Your task to perform on an android device: allow cookies in the chrome app Image 0: 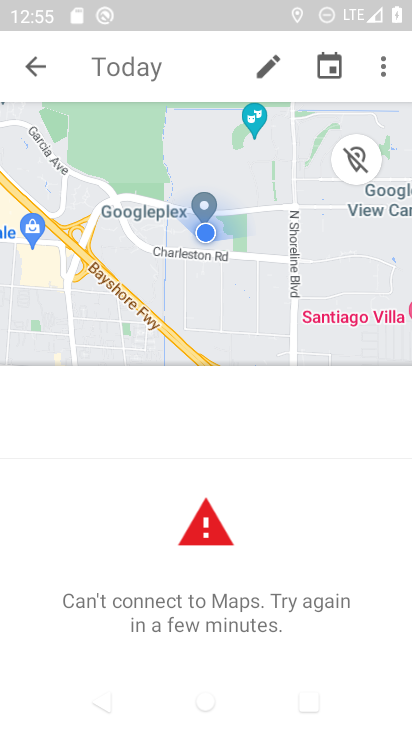
Step 0: press home button
Your task to perform on an android device: allow cookies in the chrome app Image 1: 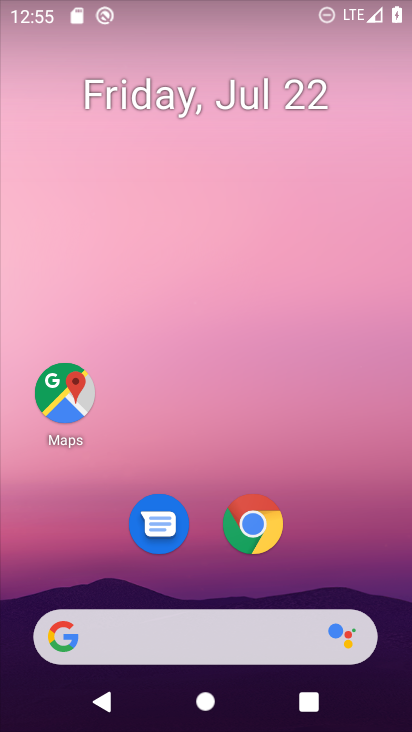
Step 1: click (268, 522)
Your task to perform on an android device: allow cookies in the chrome app Image 2: 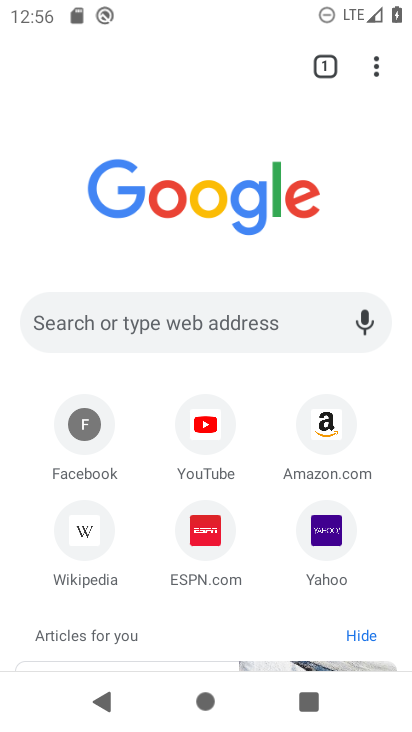
Step 2: click (378, 69)
Your task to perform on an android device: allow cookies in the chrome app Image 3: 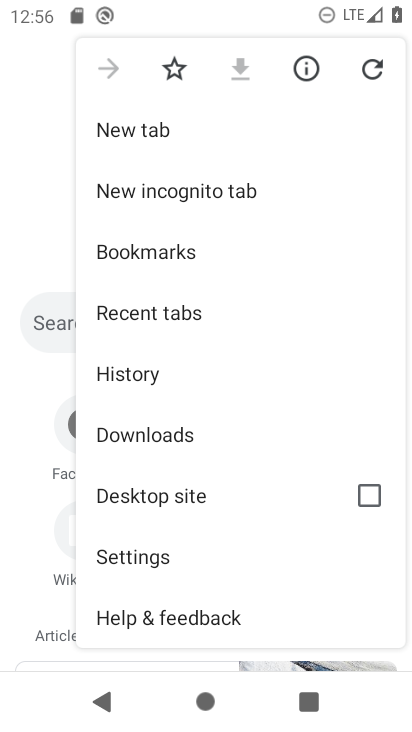
Step 3: click (170, 552)
Your task to perform on an android device: allow cookies in the chrome app Image 4: 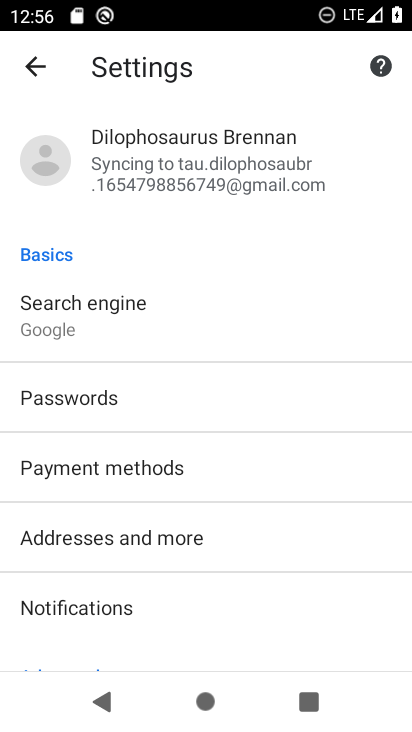
Step 4: drag from (247, 508) to (288, 139)
Your task to perform on an android device: allow cookies in the chrome app Image 5: 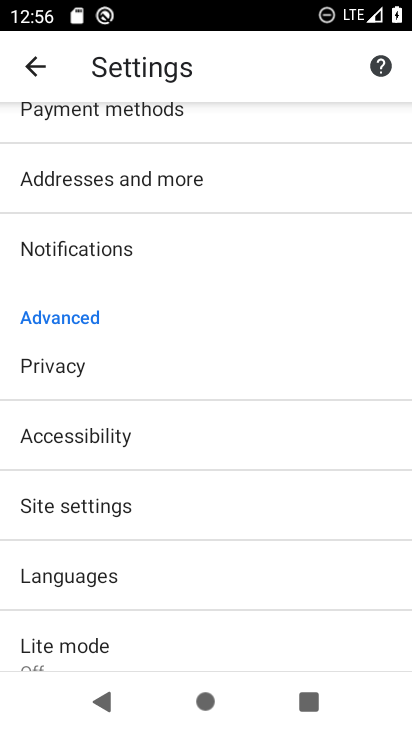
Step 5: click (110, 510)
Your task to perform on an android device: allow cookies in the chrome app Image 6: 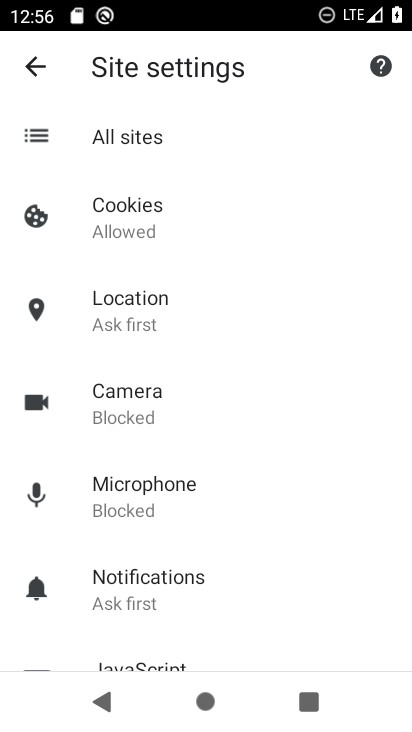
Step 6: click (144, 213)
Your task to perform on an android device: allow cookies in the chrome app Image 7: 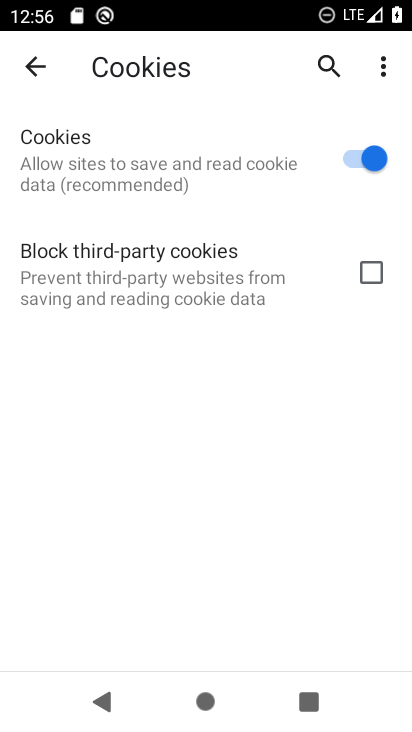
Step 7: task complete